Your task to perform on an android device: Clear all items from cart on walmart. Add "macbook pro" to the cart on walmart Image 0: 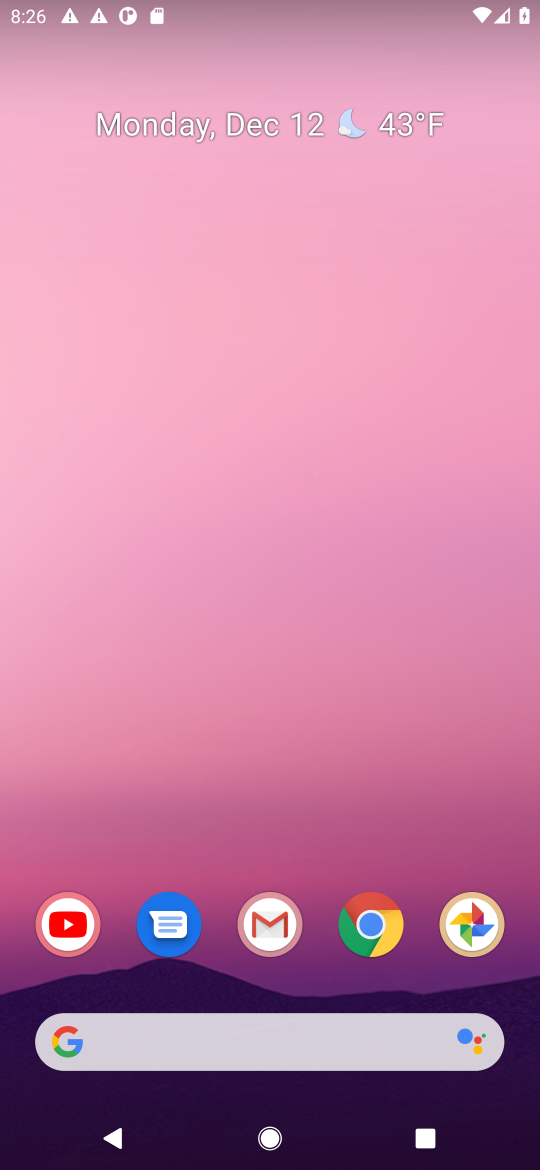
Step 0: press home button
Your task to perform on an android device: Clear all items from cart on walmart. Add "macbook pro" to the cart on walmart Image 1: 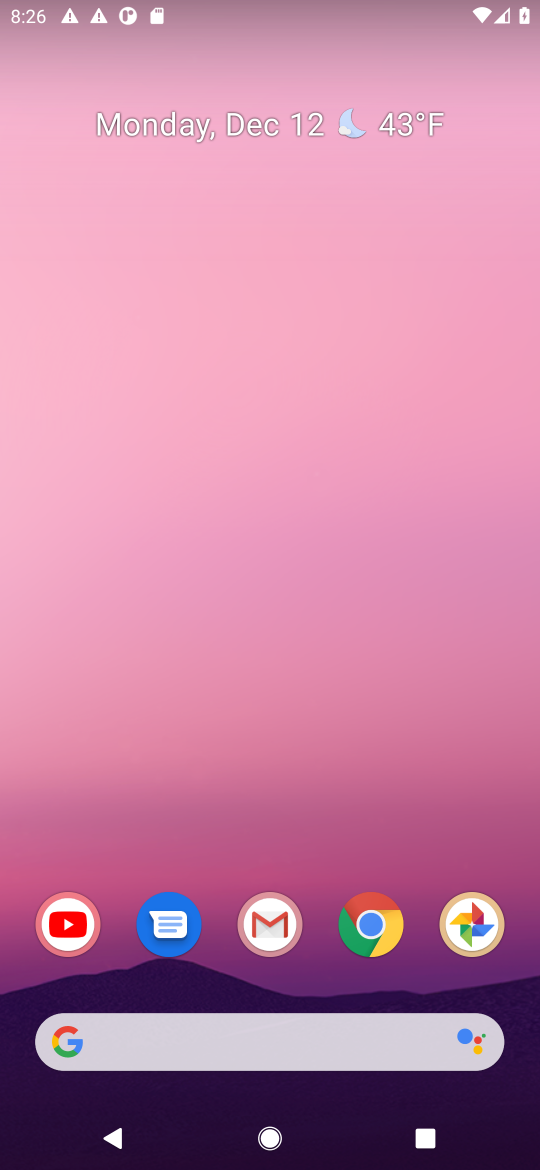
Step 1: click (238, 1032)
Your task to perform on an android device: Clear all items from cart on walmart. Add "macbook pro" to the cart on walmart Image 2: 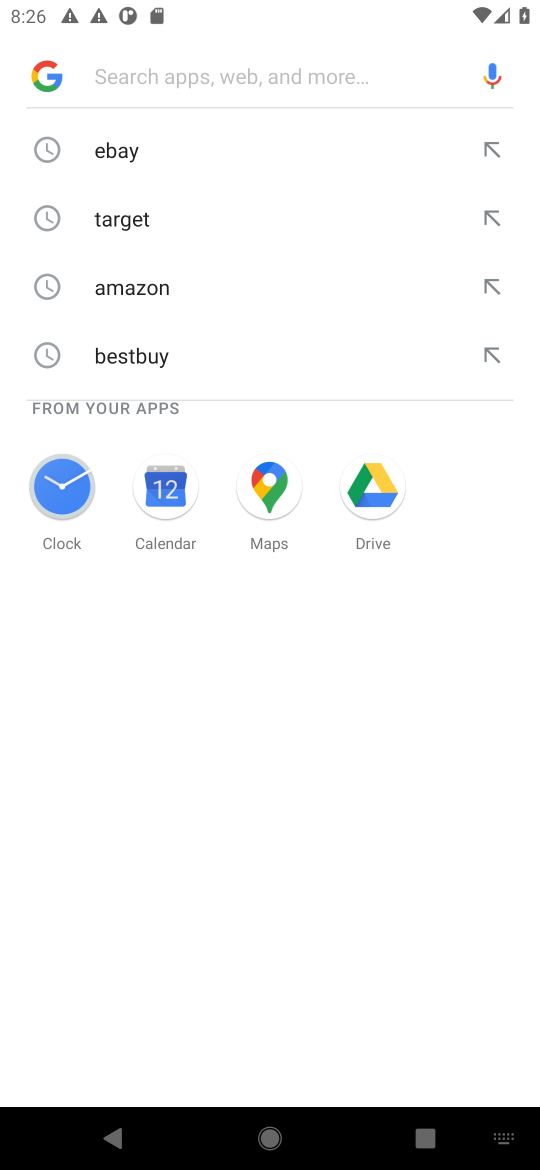
Step 2: type "walmart"
Your task to perform on an android device: Clear all items from cart on walmart. Add "macbook pro" to the cart on walmart Image 3: 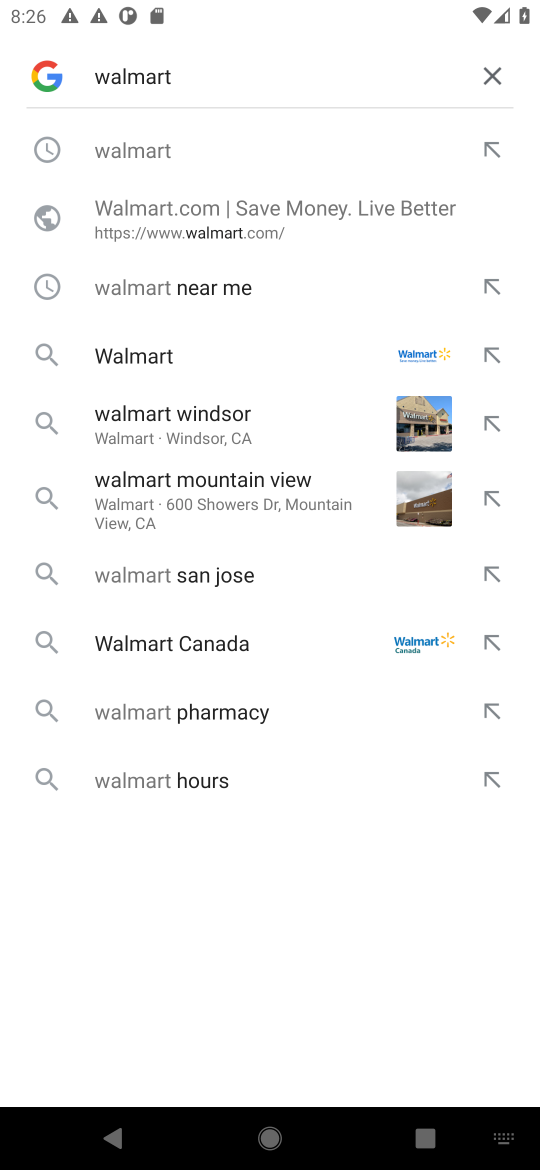
Step 3: type ""
Your task to perform on an android device: Clear all items from cart on walmart. Add "macbook pro" to the cart on walmart Image 4: 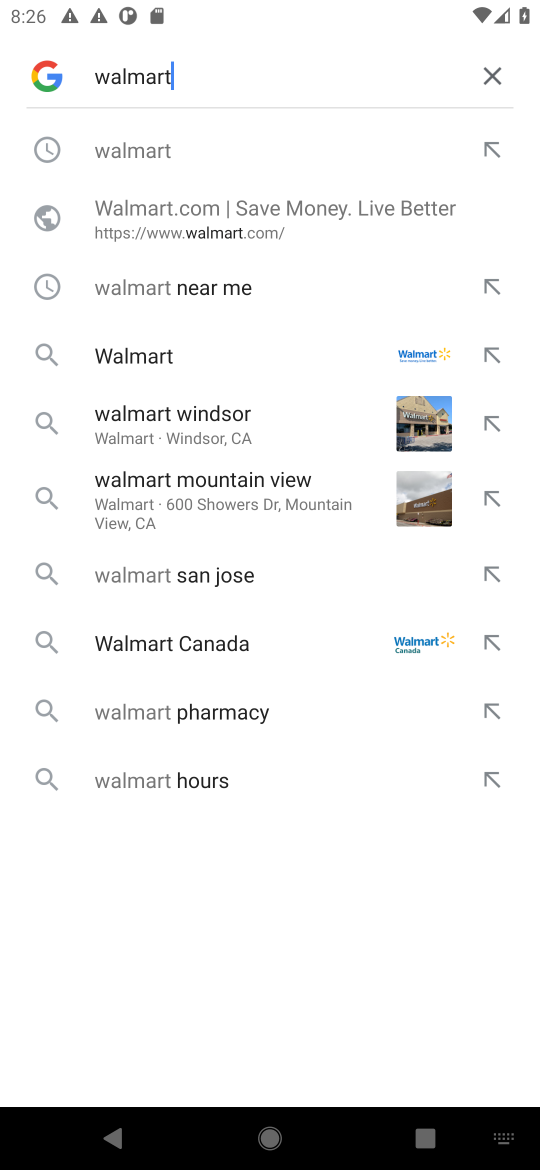
Step 4: type ""
Your task to perform on an android device: Clear all items from cart on walmart. Add "macbook pro" to the cart on walmart Image 5: 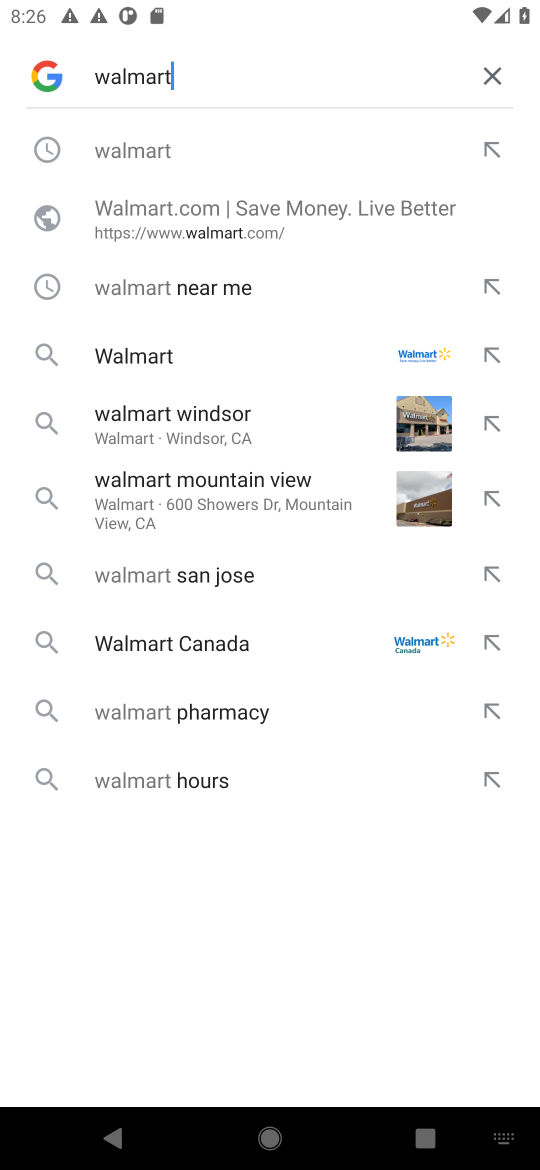
Step 5: type ""
Your task to perform on an android device: Clear all items from cart on walmart. Add "macbook pro" to the cart on walmart Image 6: 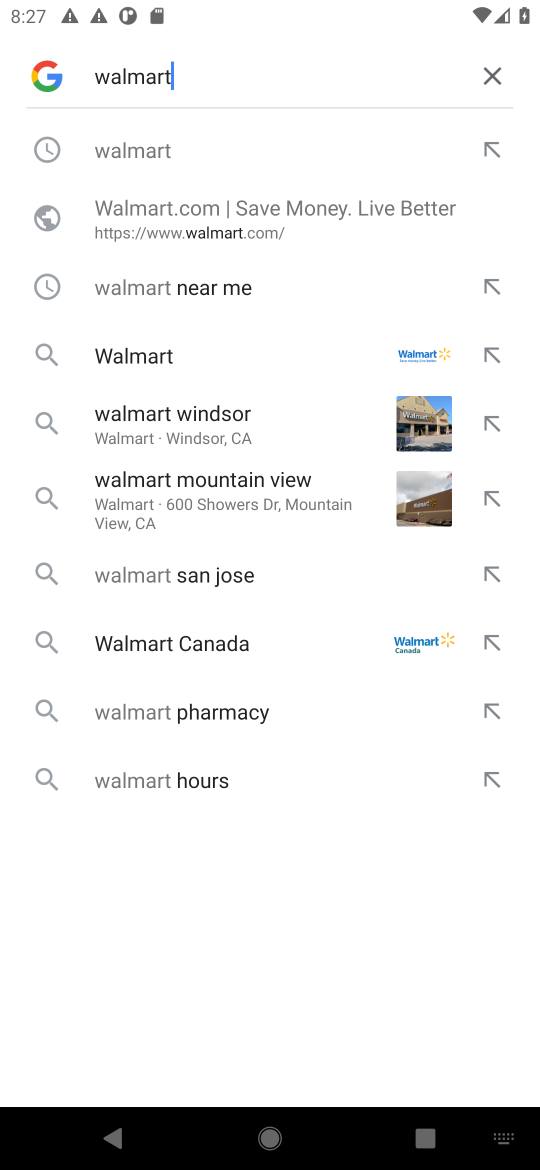
Step 6: click (195, 224)
Your task to perform on an android device: Clear all items from cart on walmart. Add "macbook pro" to the cart on walmart Image 7: 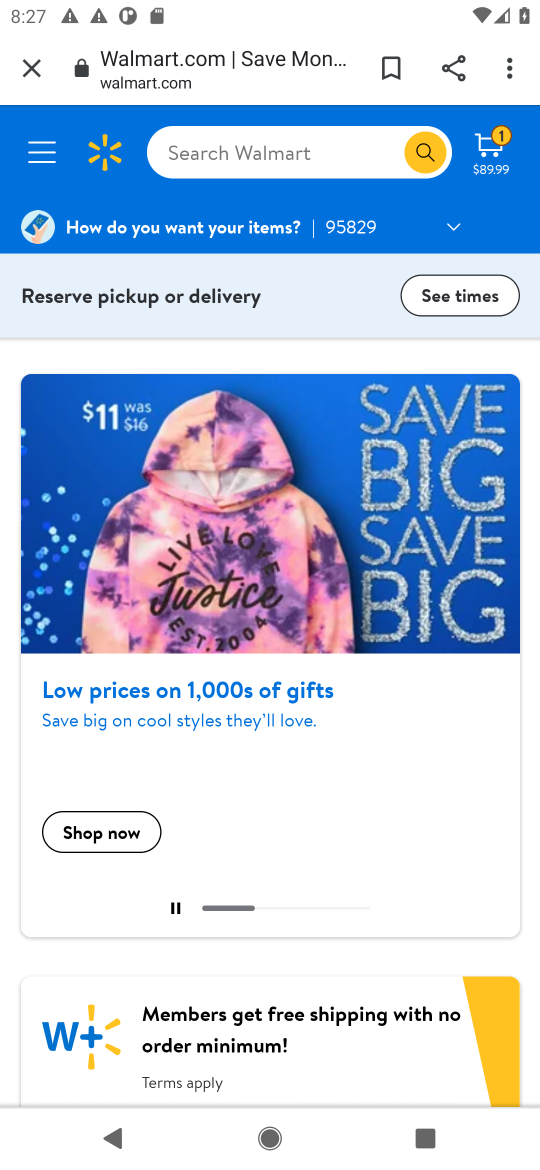
Step 7: click (493, 150)
Your task to perform on an android device: Clear all items from cart on walmart. Add "macbook pro" to the cart on walmart Image 8: 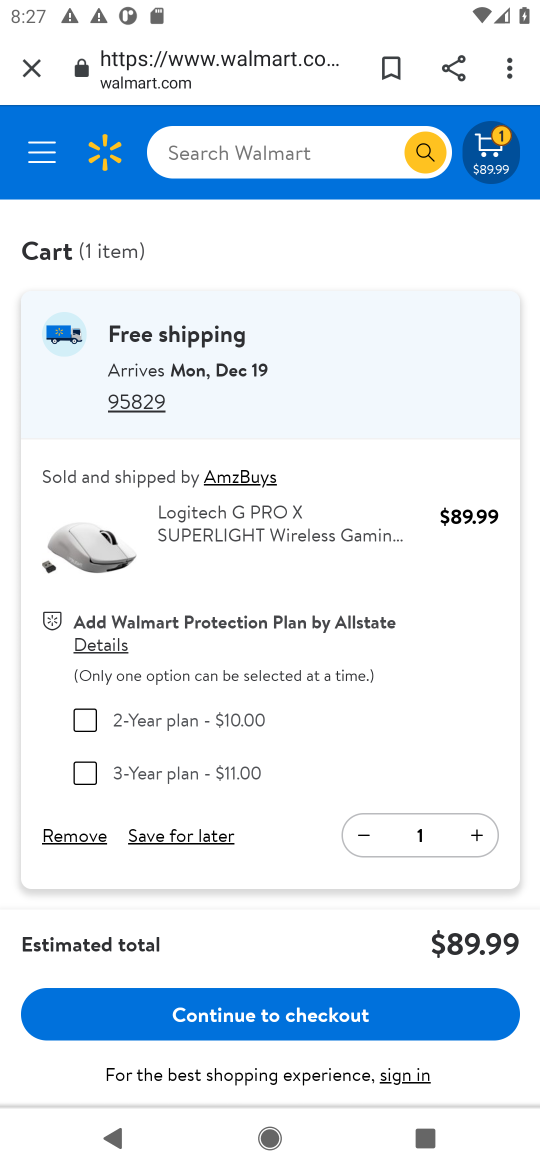
Step 8: click (89, 842)
Your task to perform on an android device: Clear all items from cart on walmart. Add "macbook pro" to the cart on walmart Image 9: 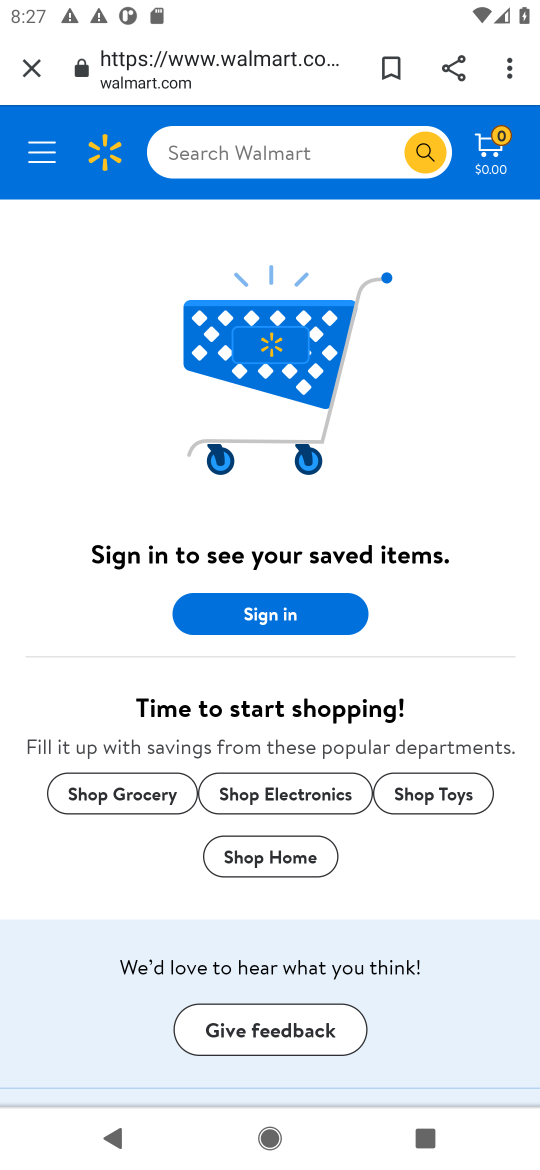
Step 9: click (291, 155)
Your task to perform on an android device: Clear all items from cart on walmart. Add "macbook pro" to the cart on walmart Image 10: 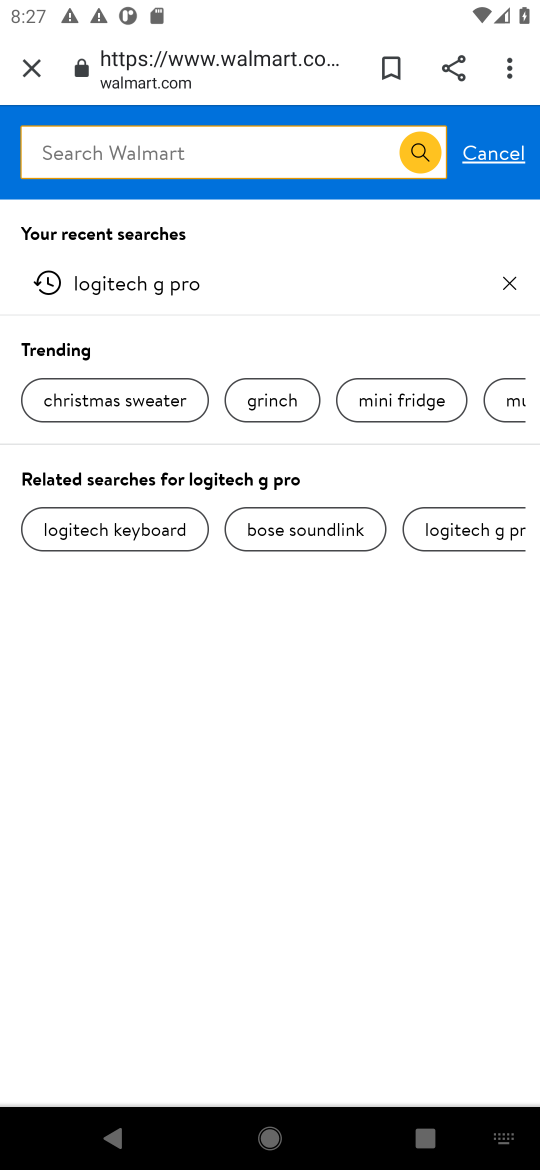
Step 10: type "macbook pro"
Your task to perform on an android device: Clear all items from cart on walmart. Add "macbook pro" to the cart on walmart Image 11: 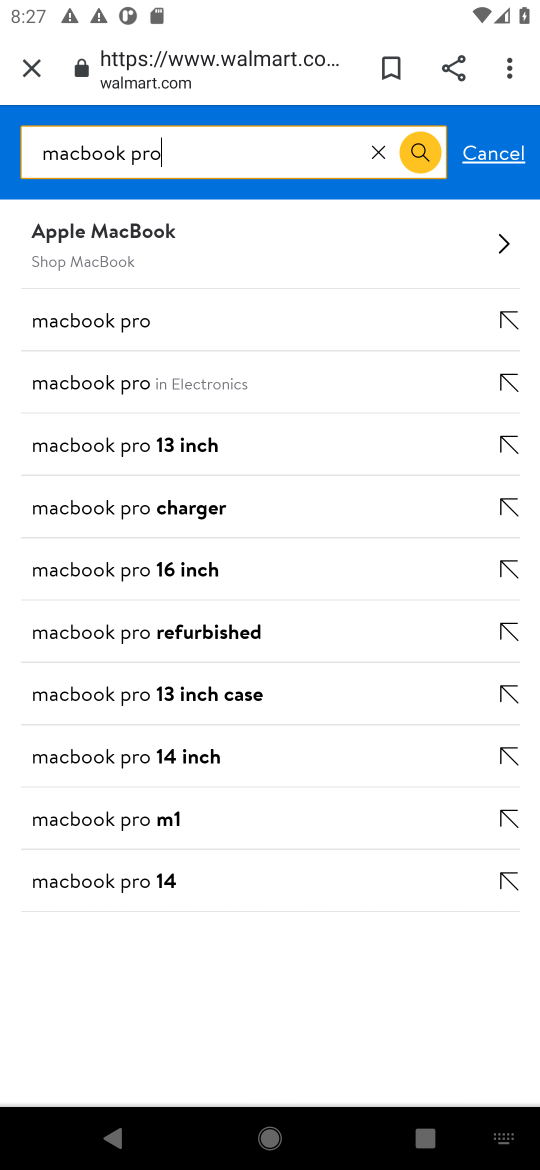
Step 11: click (430, 151)
Your task to perform on an android device: Clear all items from cart on walmart. Add "macbook pro" to the cart on walmart Image 12: 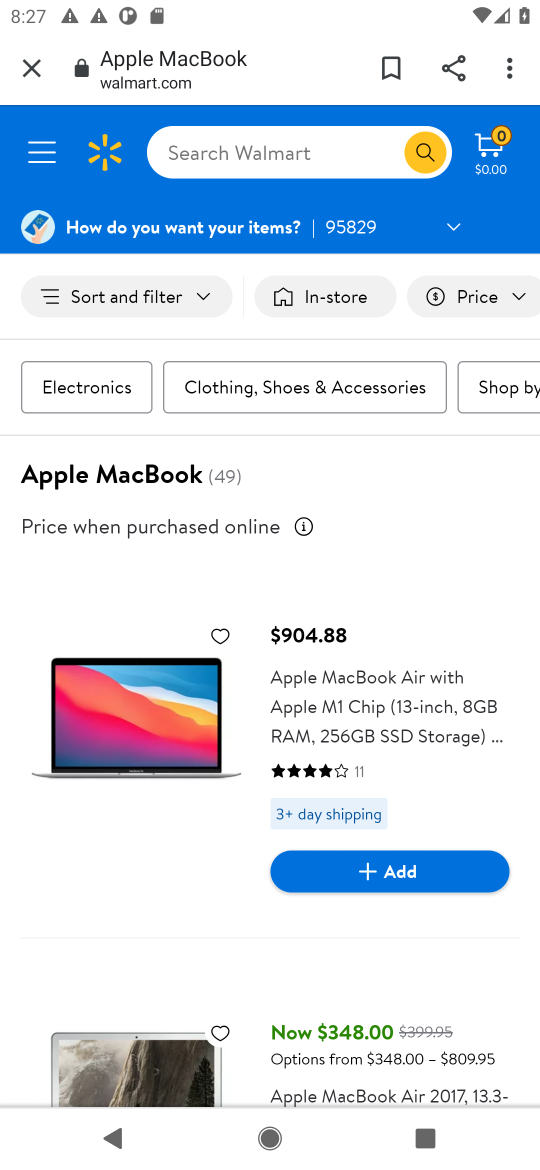
Step 12: click (359, 867)
Your task to perform on an android device: Clear all items from cart on walmart. Add "macbook pro" to the cart on walmart Image 13: 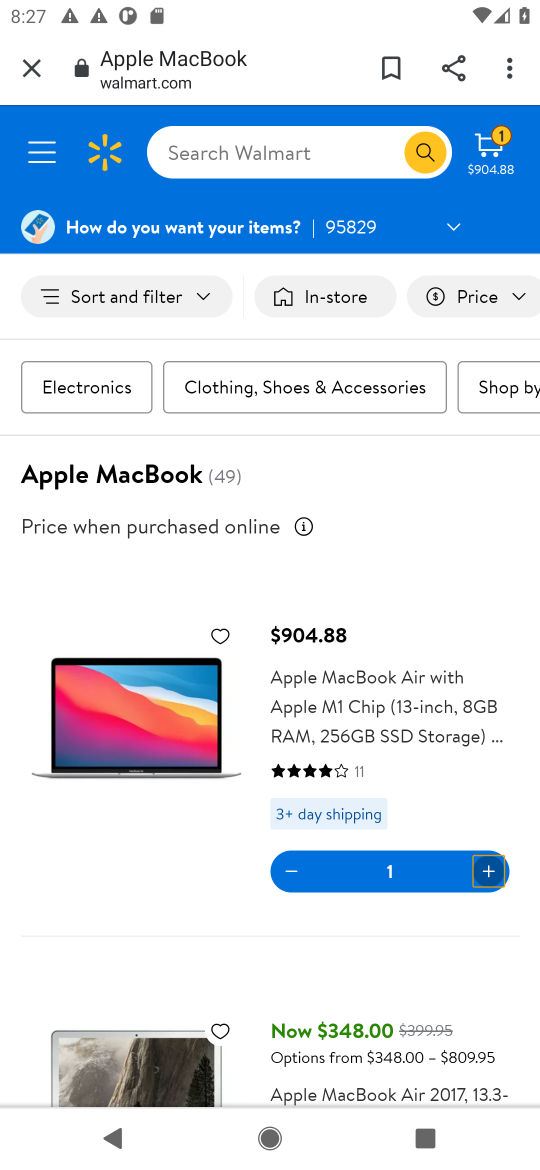
Step 13: task complete